Your task to perform on an android device: change text size in settings app Image 0: 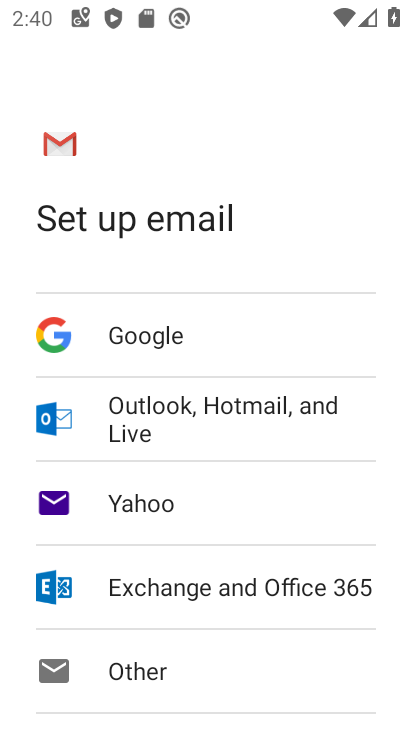
Step 0: press home button
Your task to perform on an android device: change text size in settings app Image 1: 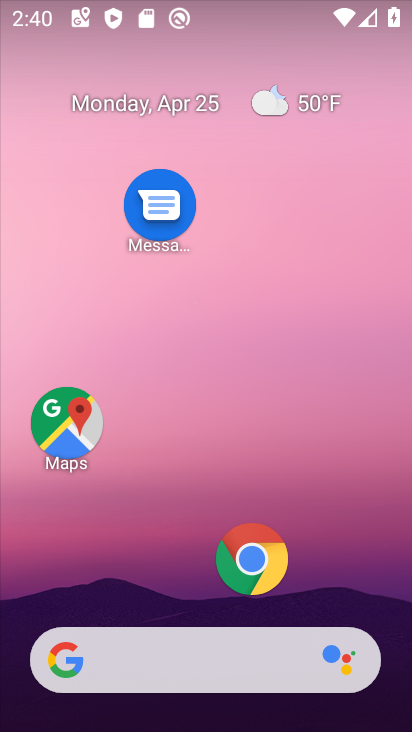
Step 1: drag from (154, 579) to (299, 8)
Your task to perform on an android device: change text size in settings app Image 2: 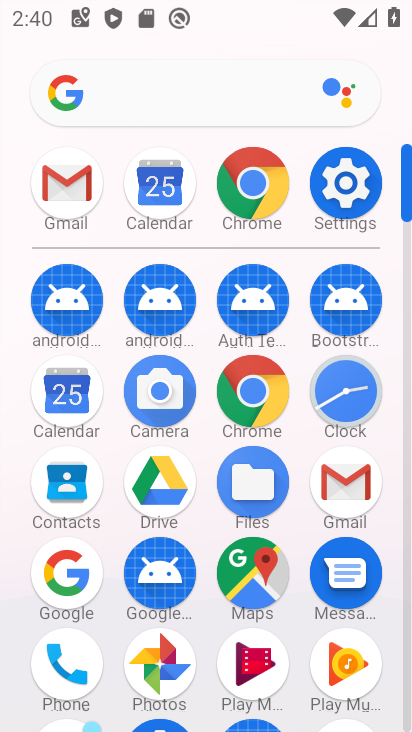
Step 2: click (351, 195)
Your task to perform on an android device: change text size in settings app Image 3: 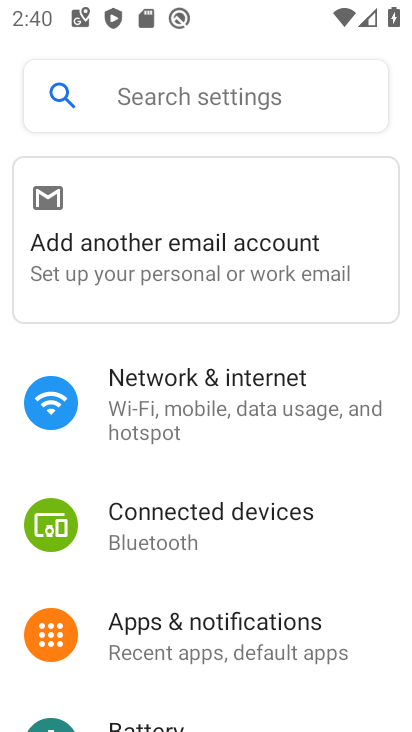
Step 3: drag from (202, 617) to (261, 200)
Your task to perform on an android device: change text size in settings app Image 4: 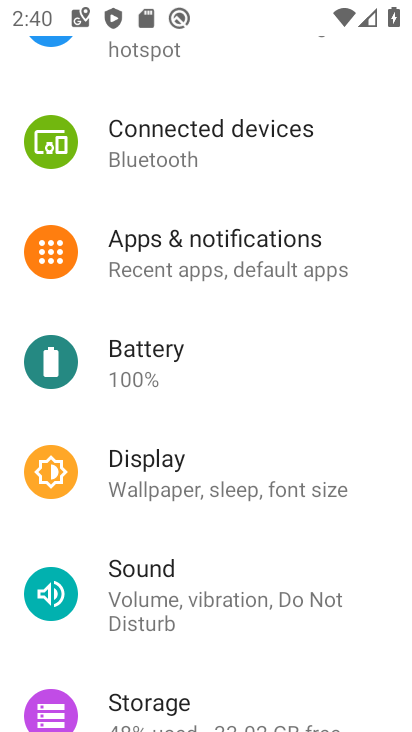
Step 4: click (197, 485)
Your task to perform on an android device: change text size in settings app Image 5: 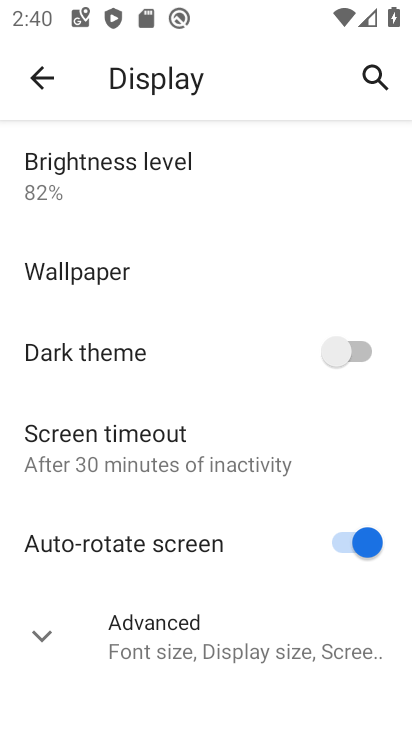
Step 5: click (145, 628)
Your task to perform on an android device: change text size in settings app Image 6: 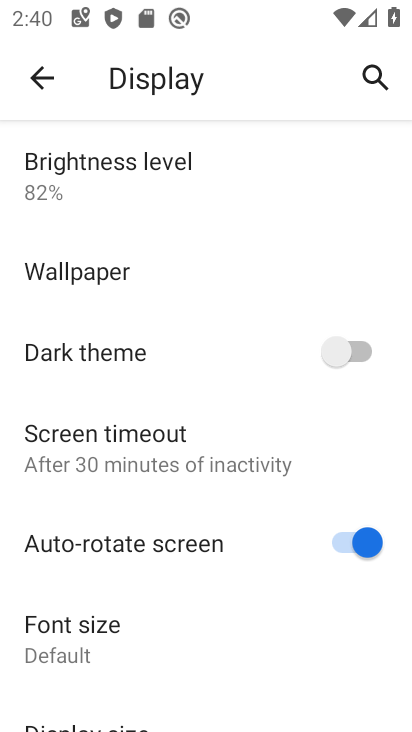
Step 6: drag from (154, 542) to (209, 247)
Your task to perform on an android device: change text size in settings app Image 7: 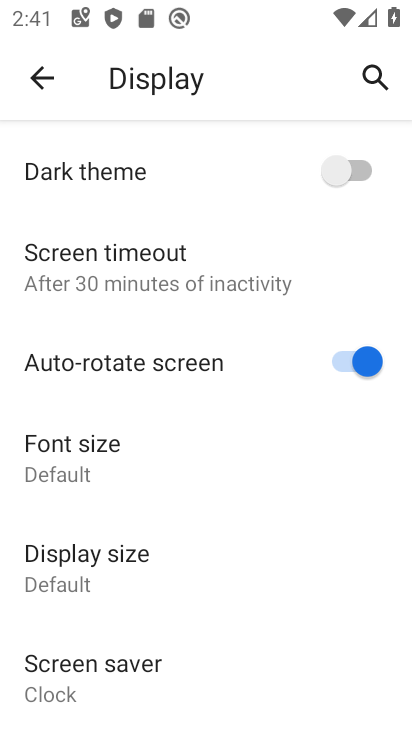
Step 7: click (98, 443)
Your task to perform on an android device: change text size in settings app Image 8: 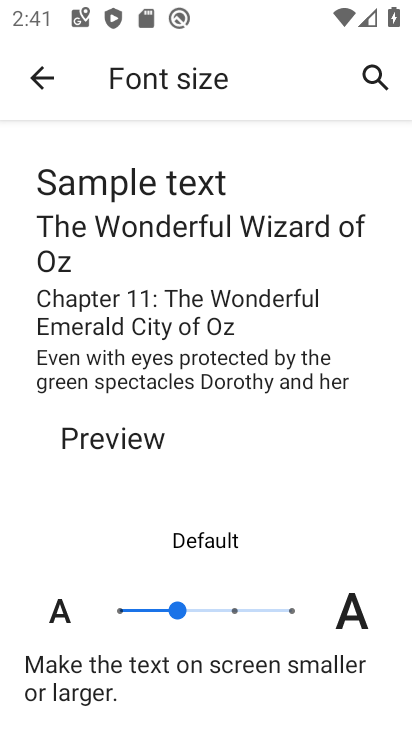
Step 8: click (234, 605)
Your task to perform on an android device: change text size in settings app Image 9: 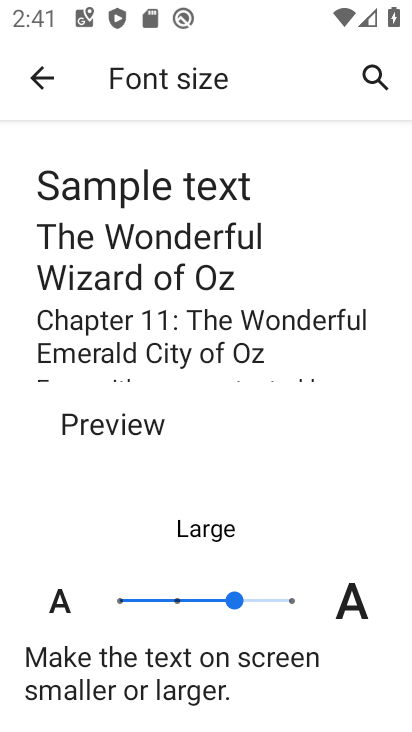
Step 9: task complete